Your task to perform on an android device: empty trash in google photos Image 0: 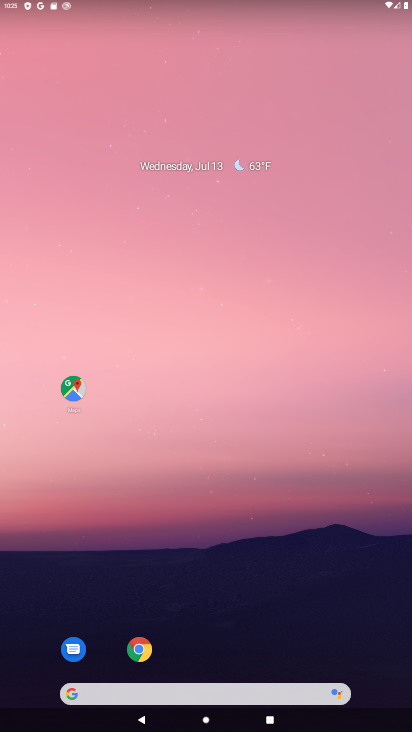
Step 0: drag from (241, 591) to (251, 254)
Your task to perform on an android device: empty trash in google photos Image 1: 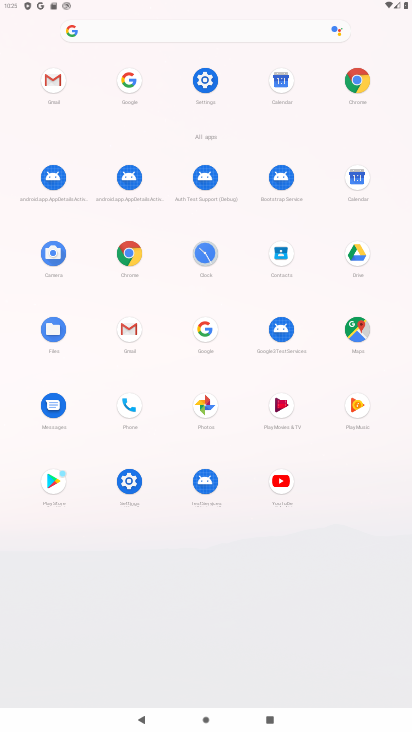
Step 1: click (207, 407)
Your task to perform on an android device: empty trash in google photos Image 2: 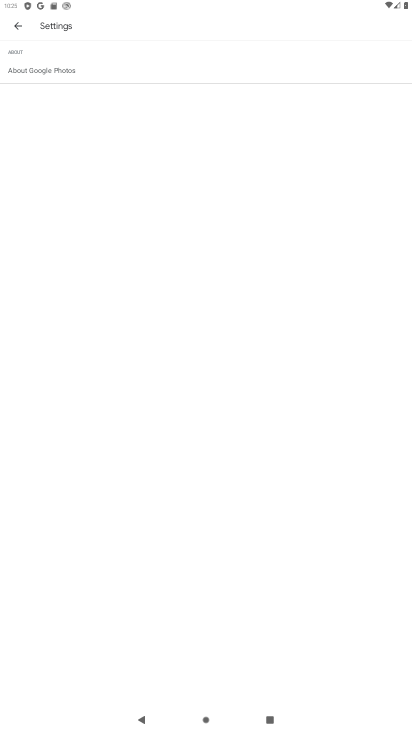
Step 2: click (17, 20)
Your task to perform on an android device: empty trash in google photos Image 3: 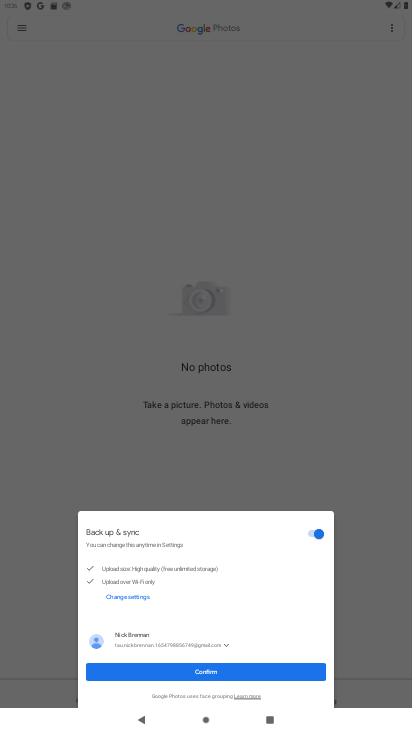
Step 3: click (244, 671)
Your task to perform on an android device: empty trash in google photos Image 4: 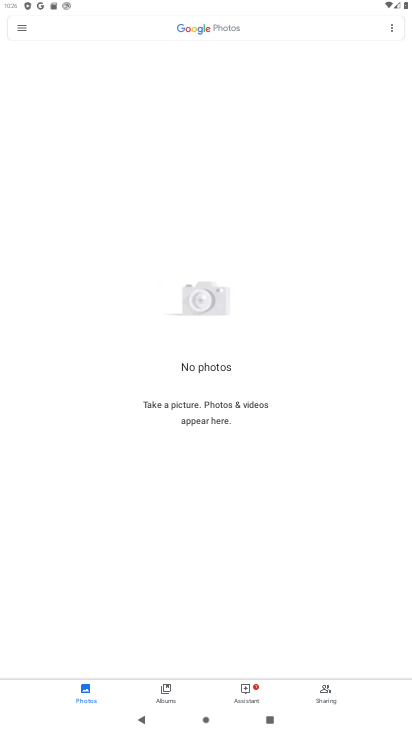
Step 4: click (16, 24)
Your task to perform on an android device: empty trash in google photos Image 5: 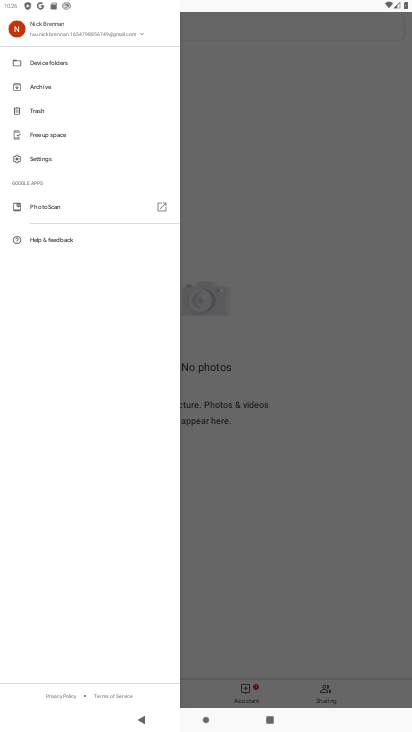
Step 5: click (52, 110)
Your task to perform on an android device: empty trash in google photos Image 6: 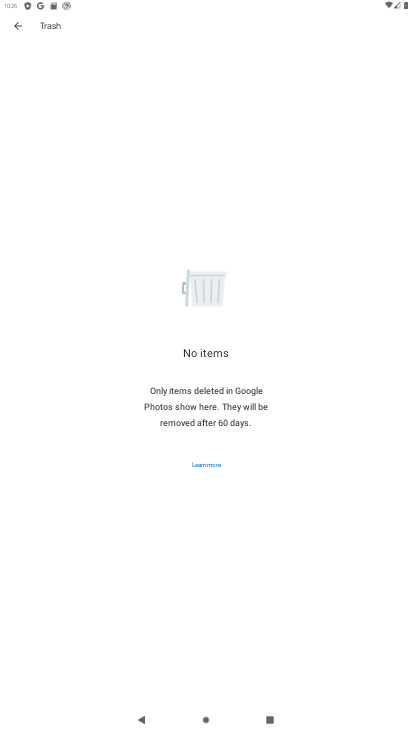
Step 6: task complete